Your task to perform on an android device: change notification settings in the gmail app Image 0: 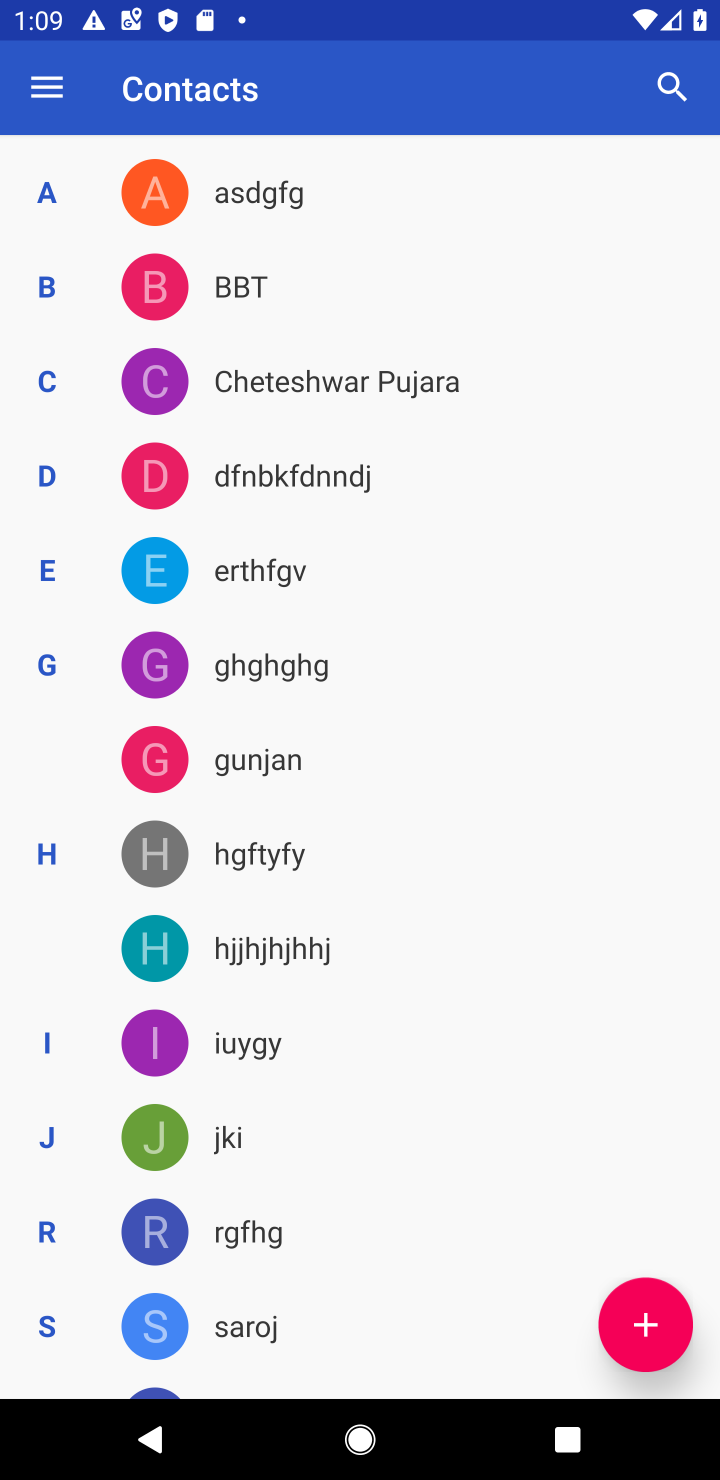
Step 0: press home button
Your task to perform on an android device: change notification settings in the gmail app Image 1: 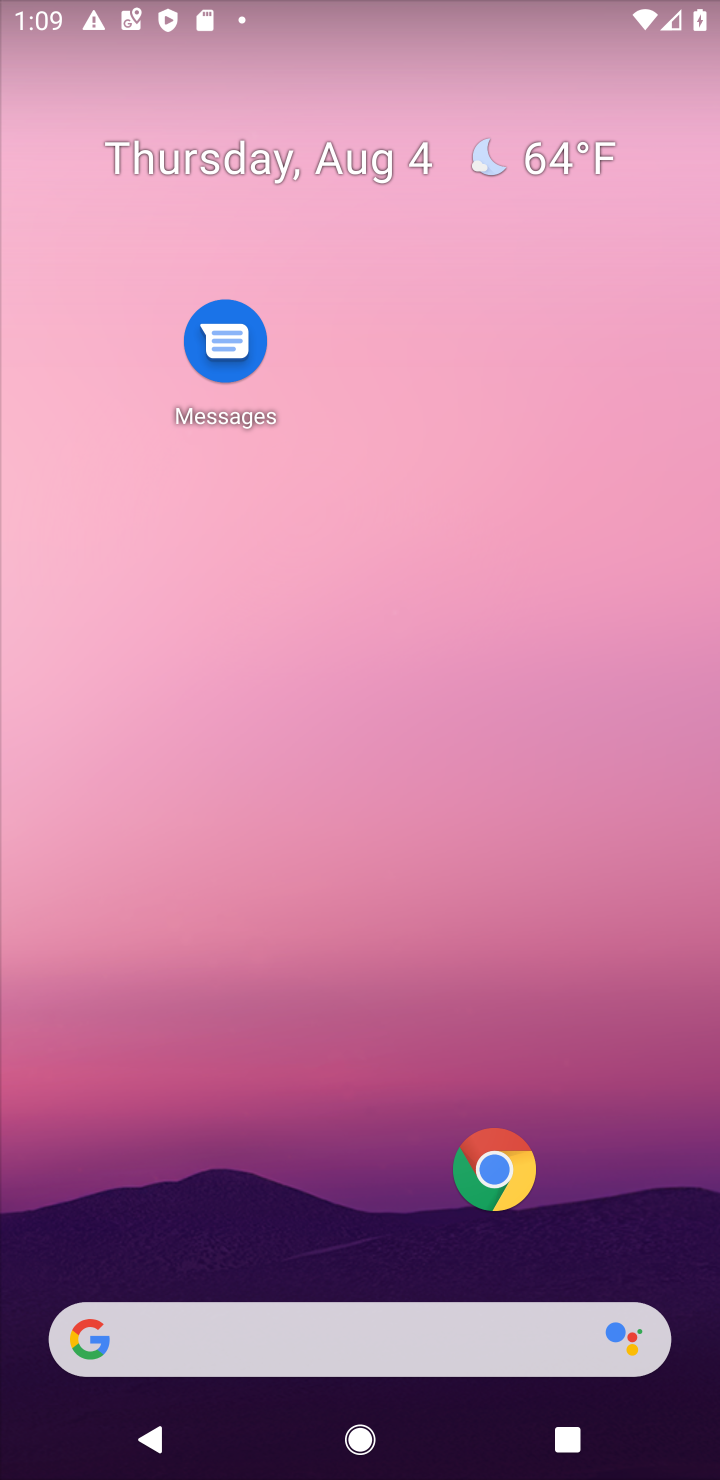
Step 1: drag from (313, 1119) to (436, 21)
Your task to perform on an android device: change notification settings in the gmail app Image 2: 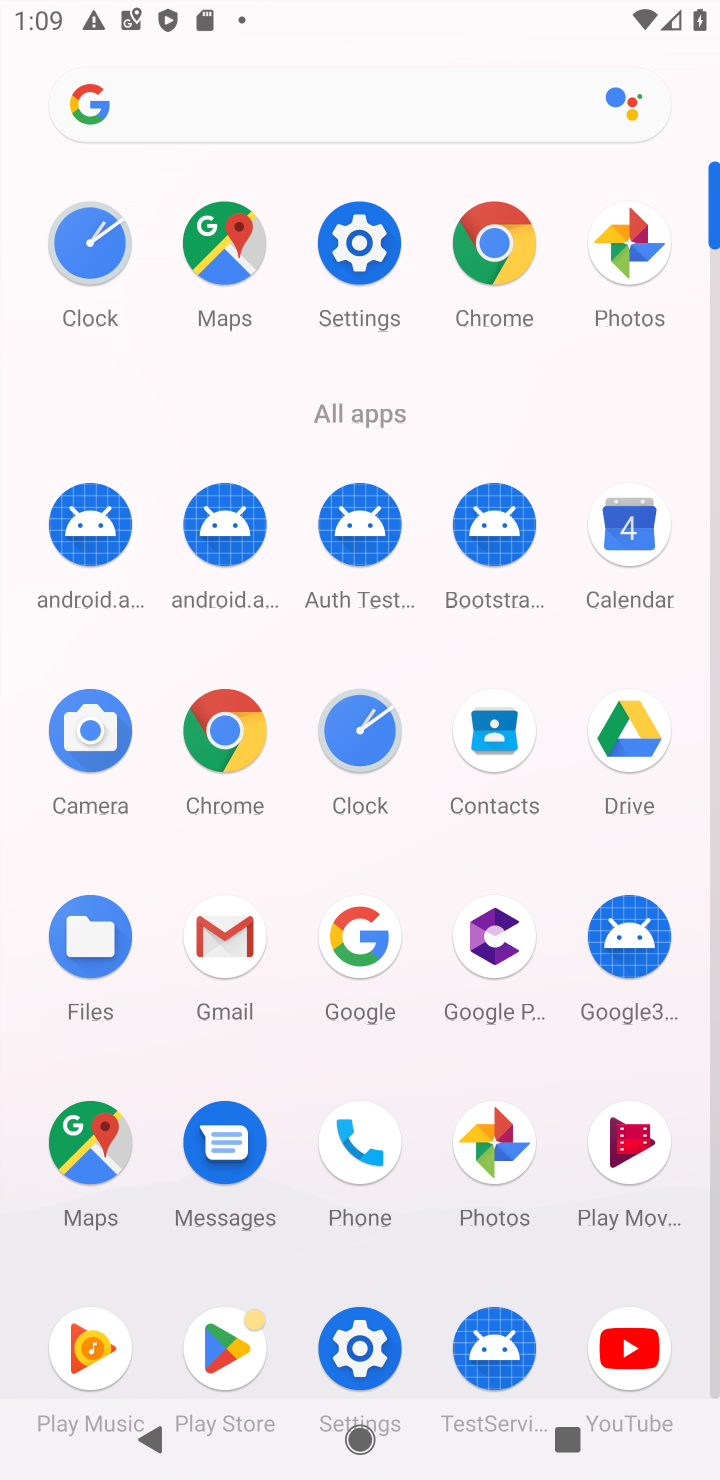
Step 2: click (231, 940)
Your task to perform on an android device: change notification settings in the gmail app Image 3: 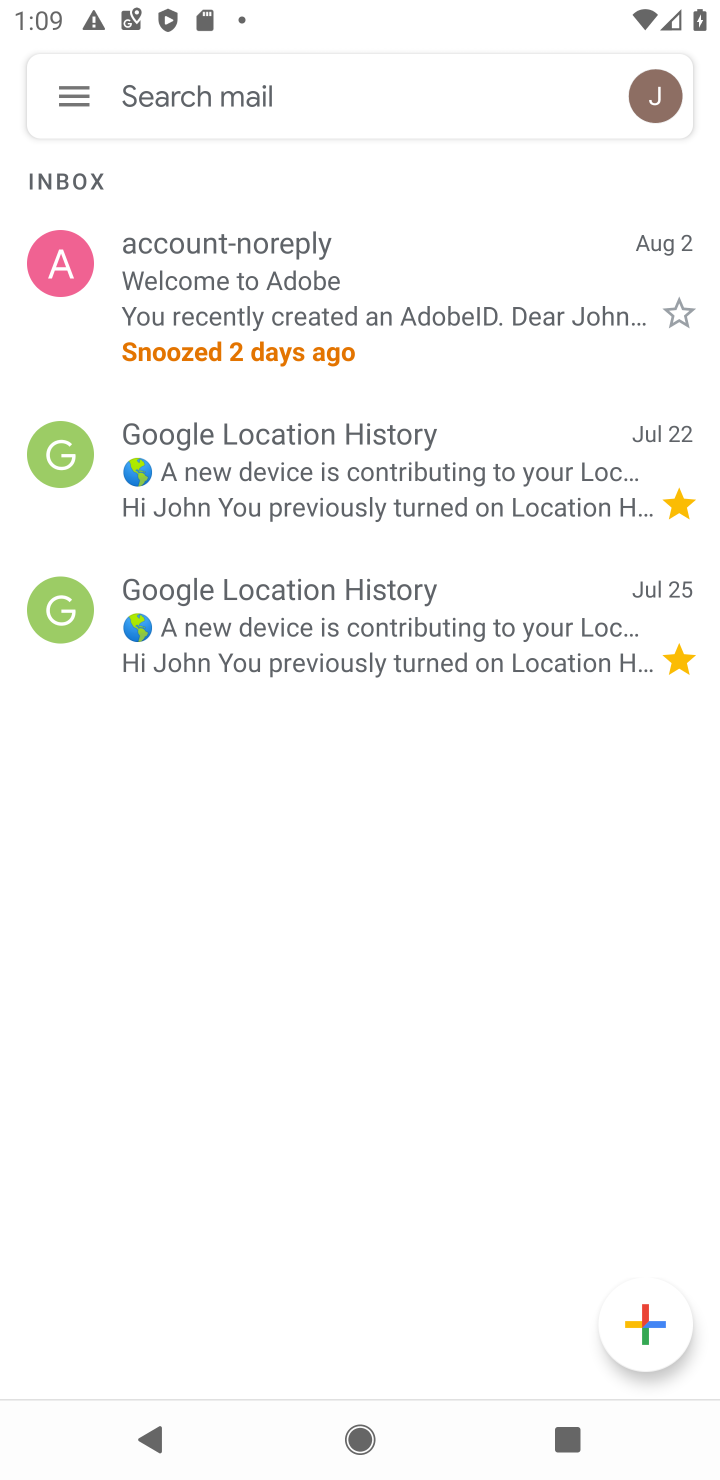
Step 3: click (65, 110)
Your task to perform on an android device: change notification settings in the gmail app Image 4: 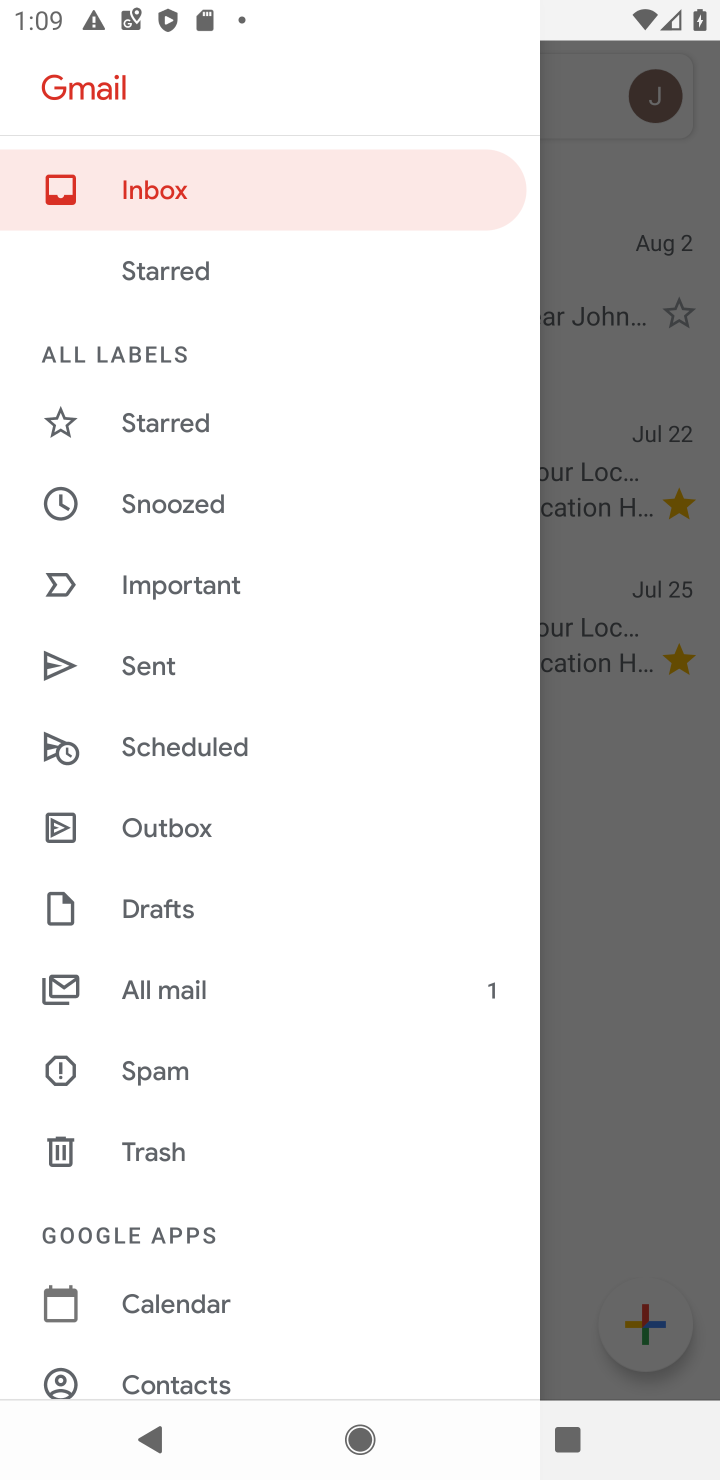
Step 4: drag from (192, 1321) to (342, 806)
Your task to perform on an android device: change notification settings in the gmail app Image 5: 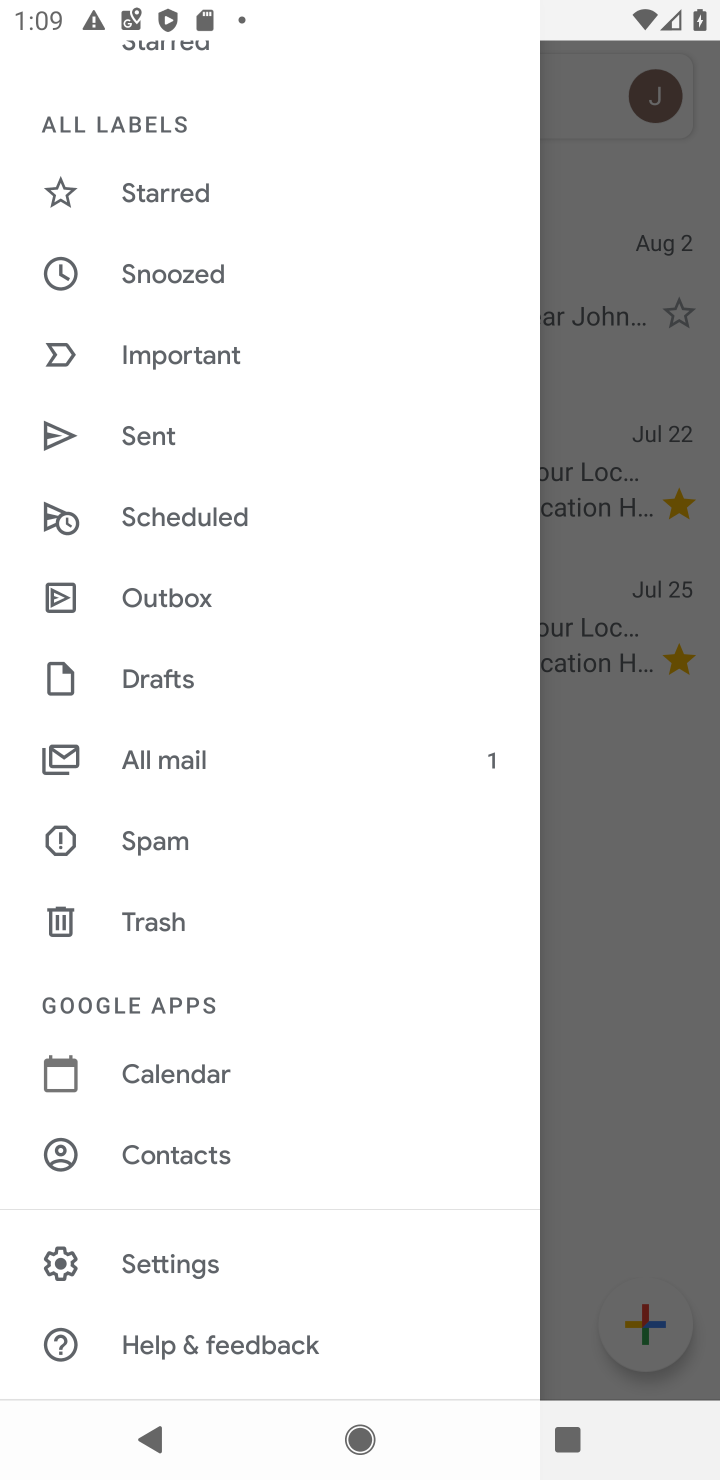
Step 5: click (201, 1268)
Your task to perform on an android device: change notification settings in the gmail app Image 6: 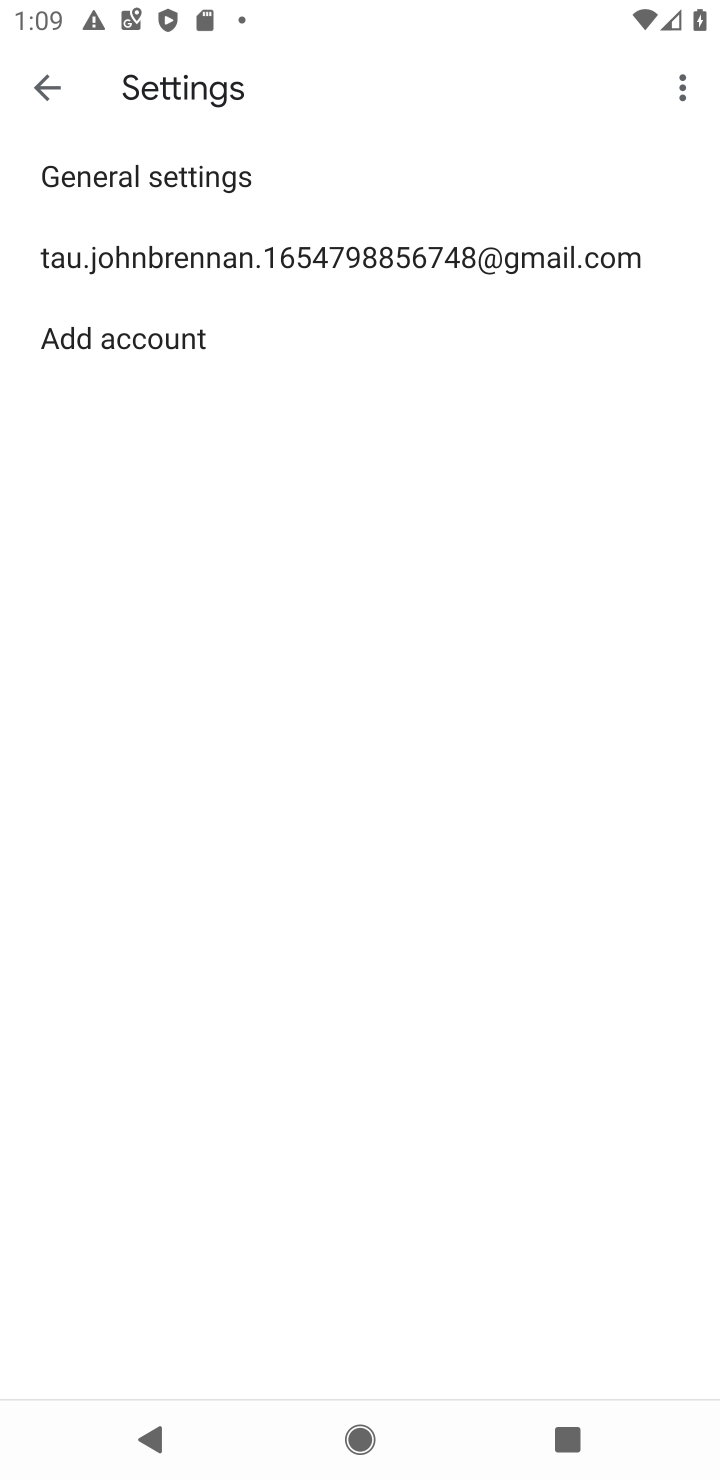
Step 6: click (168, 179)
Your task to perform on an android device: change notification settings in the gmail app Image 7: 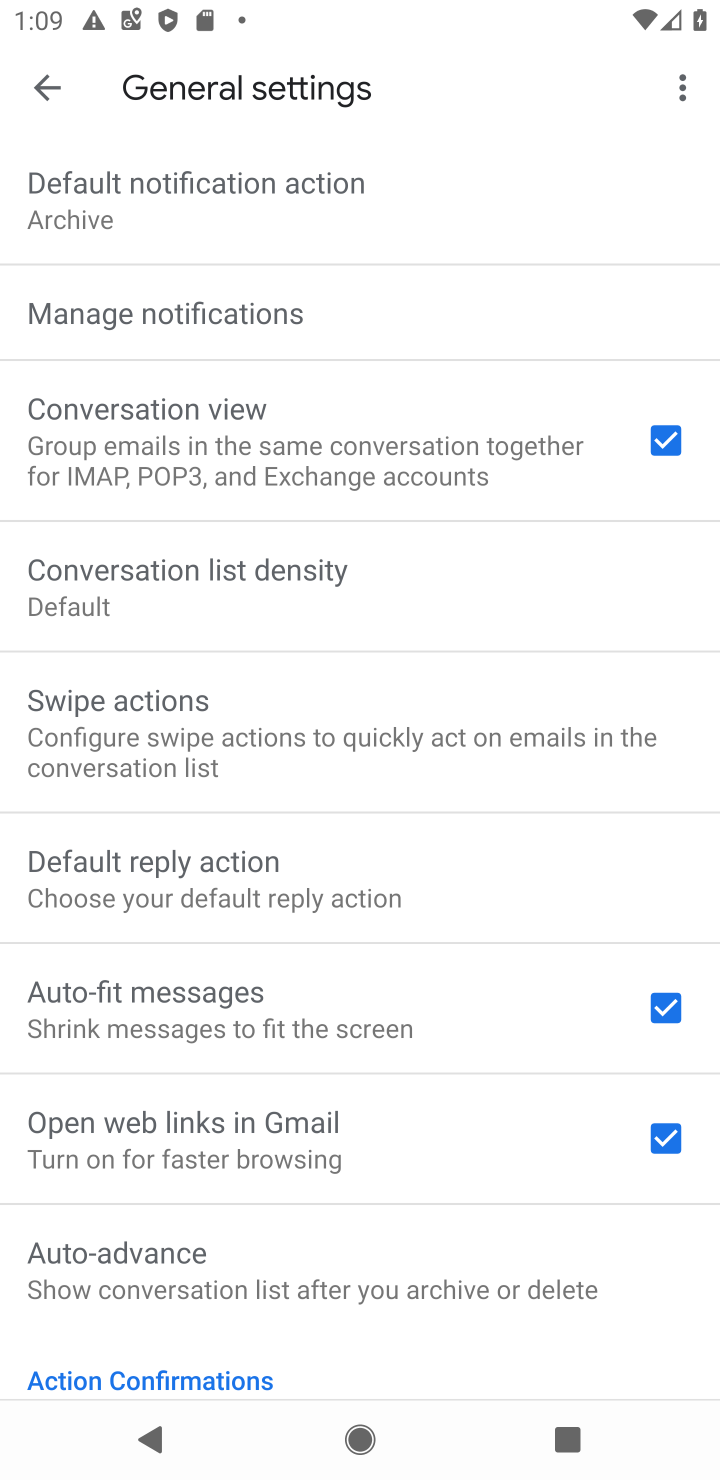
Step 7: click (187, 302)
Your task to perform on an android device: change notification settings in the gmail app Image 8: 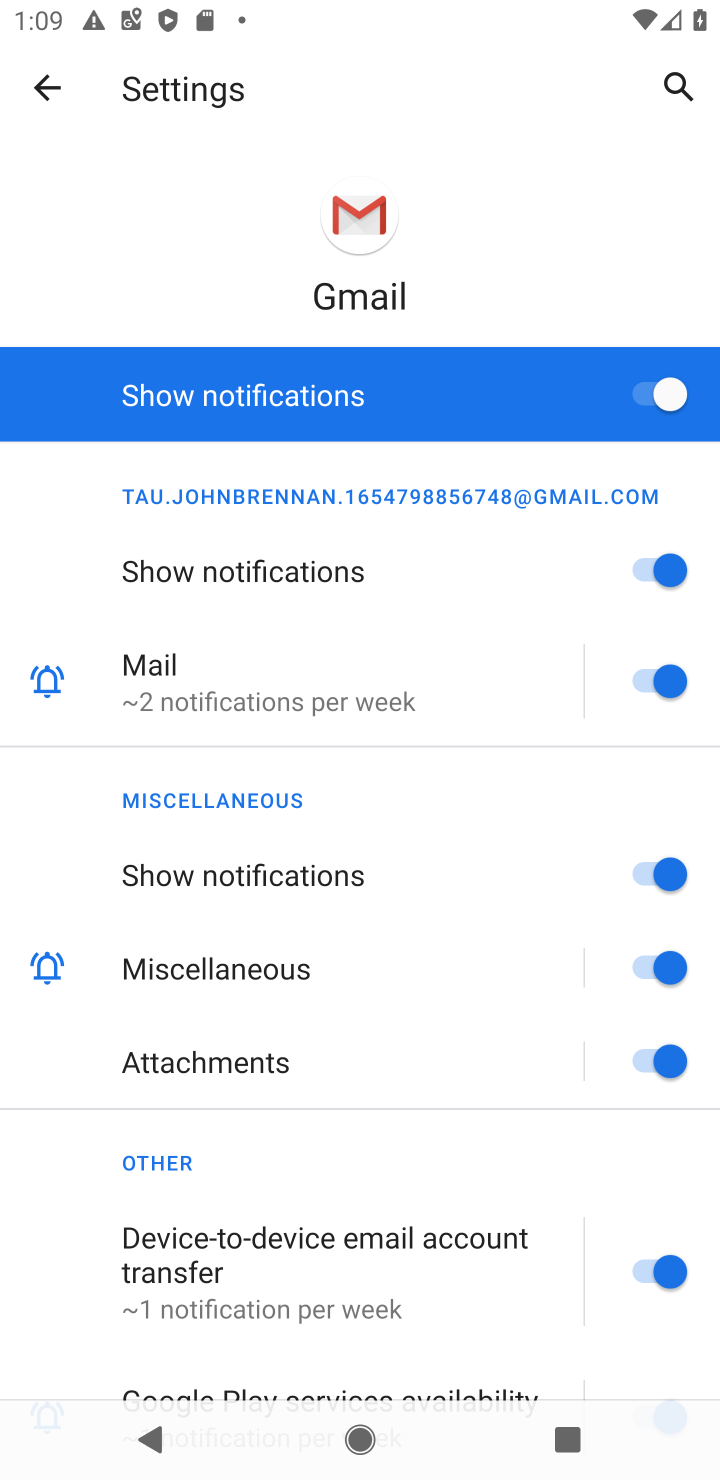
Step 8: click (614, 399)
Your task to perform on an android device: change notification settings in the gmail app Image 9: 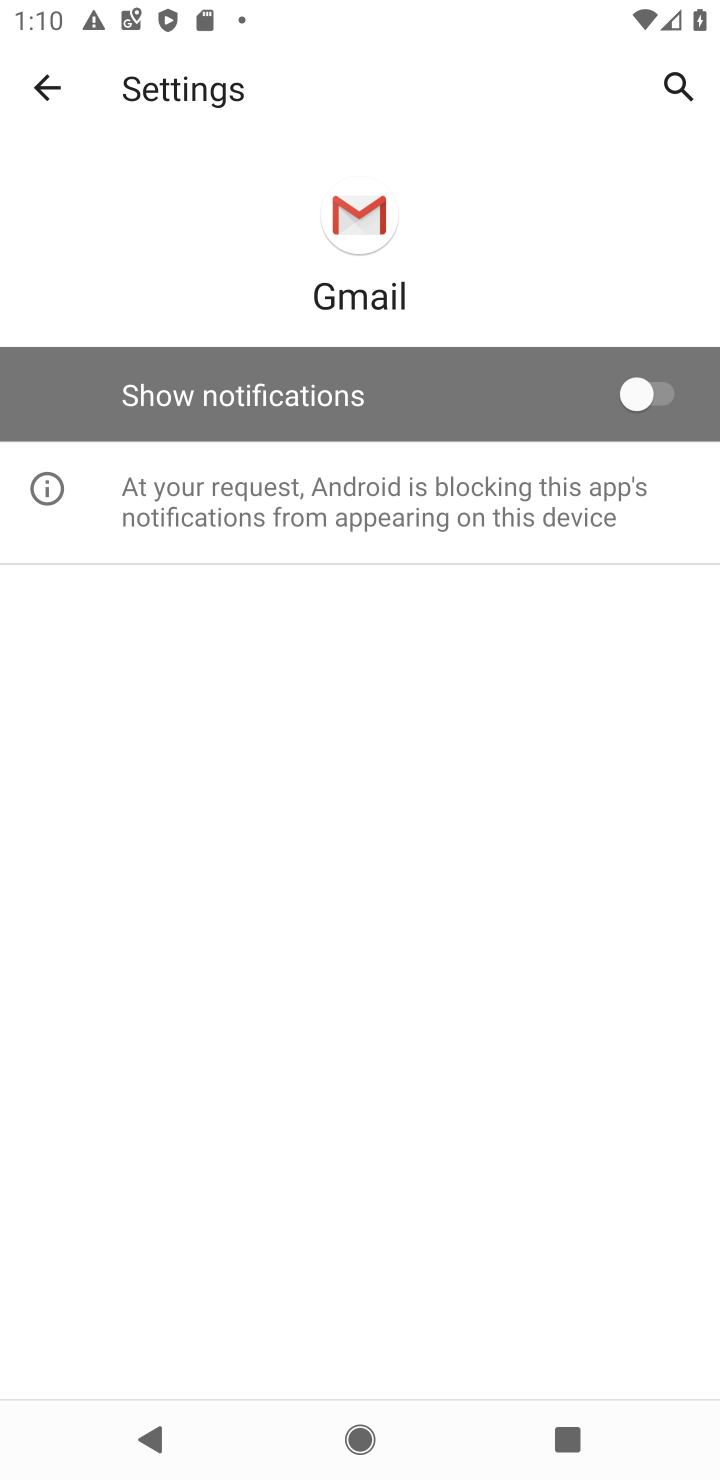
Step 9: task complete